Your task to perform on an android device: turn off location Image 0: 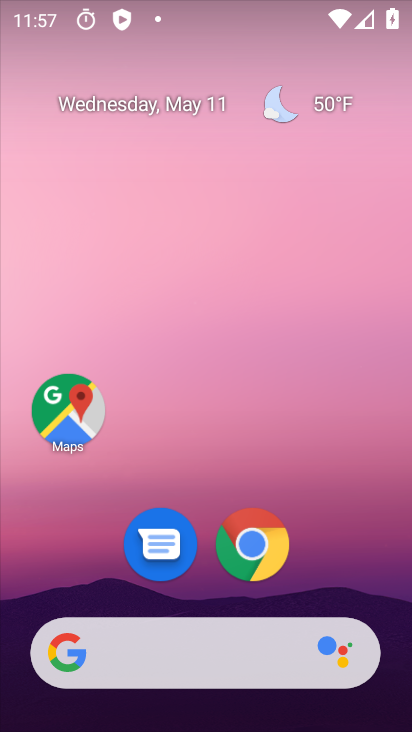
Step 0: drag from (159, 644) to (403, 4)
Your task to perform on an android device: turn off location Image 1: 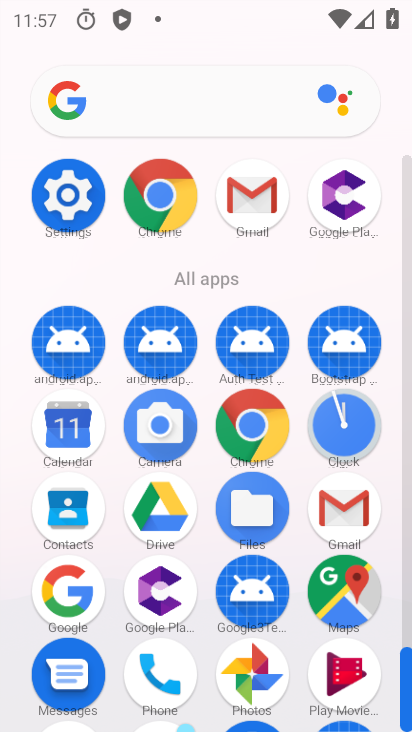
Step 1: click (86, 194)
Your task to perform on an android device: turn off location Image 2: 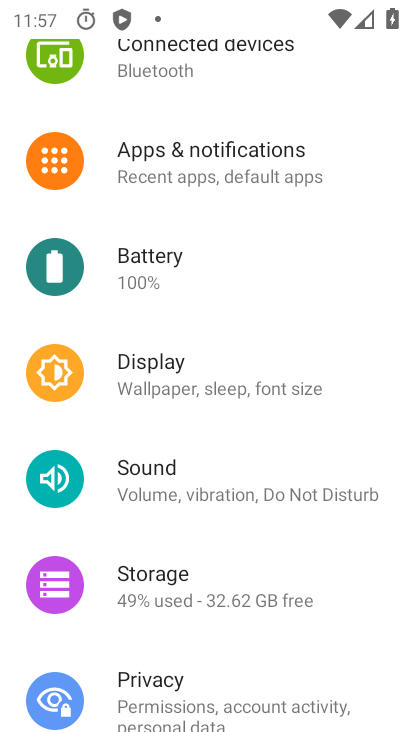
Step 2: drag from (167, 524) to (159, 87)
Your task to perform on an android device: turn off location Image 3: 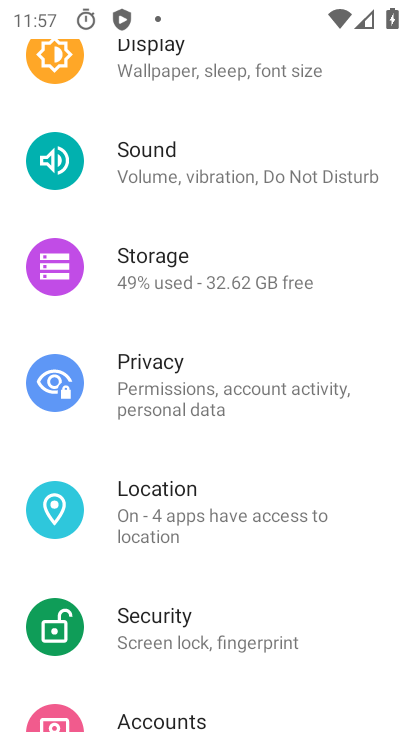
Step 3: click (155, 504)
Your task to perform on an android device: turn off location Image 4: 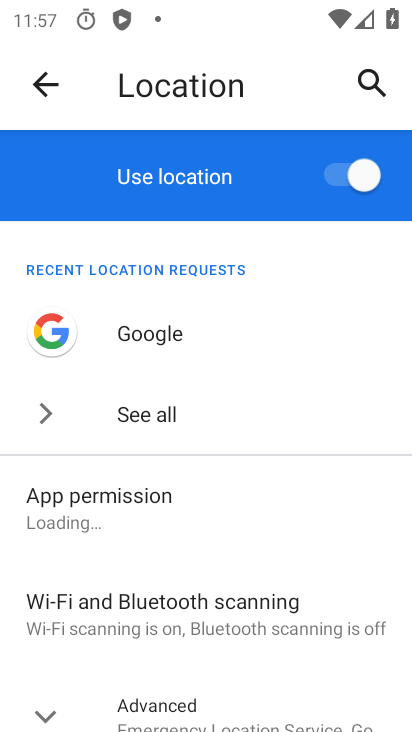
Step 4: click (351, 185)
Your task to perform on an android device: turn off location Image 5: 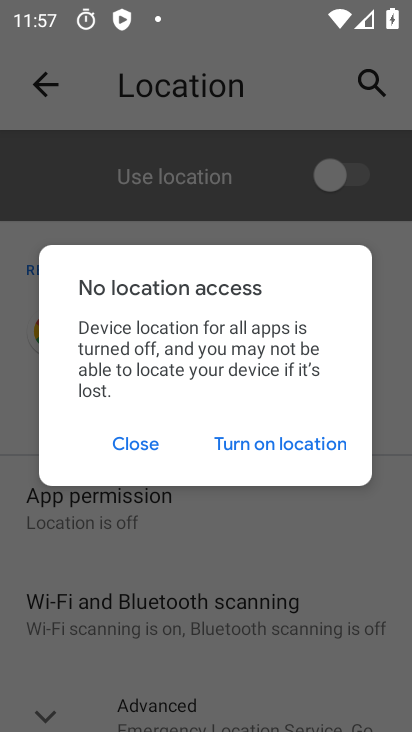
Step 5: task complete